Your task to perform on an android device: add a contact Image 0: 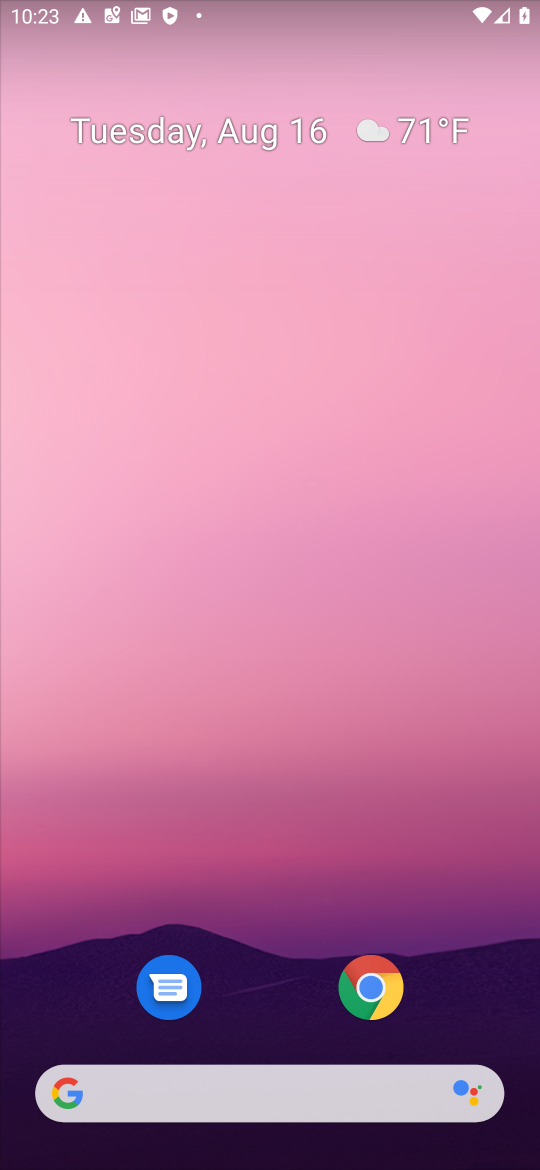
Step 0: drag from (69, 1141) to (255, 569)
Your task to perform on an android device: add a contact Image 1: 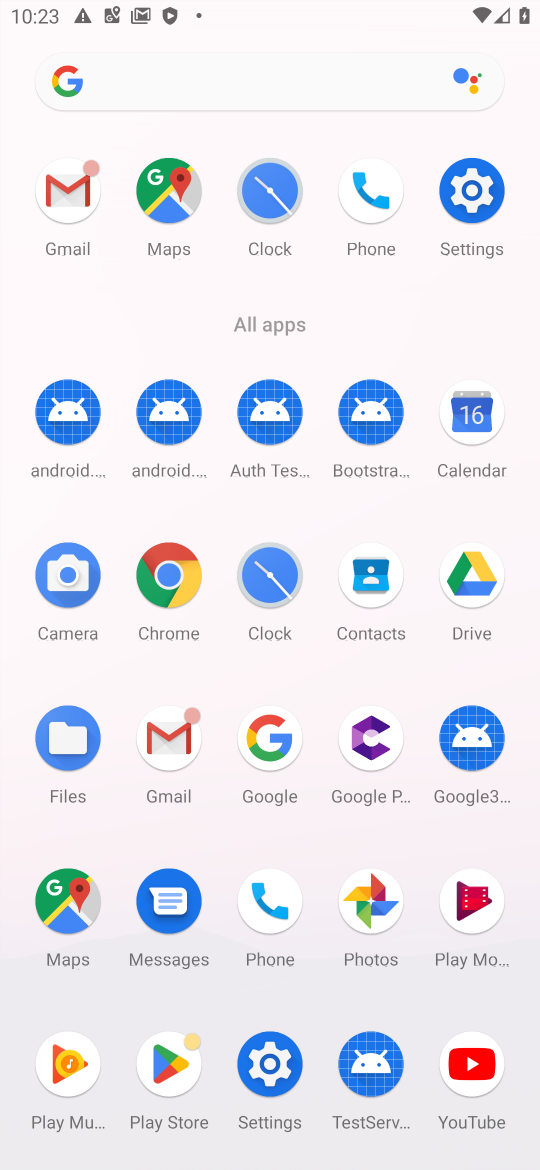
Step 1: click (266, 927)
Your task to perform on an android device: add a contact Image 2: 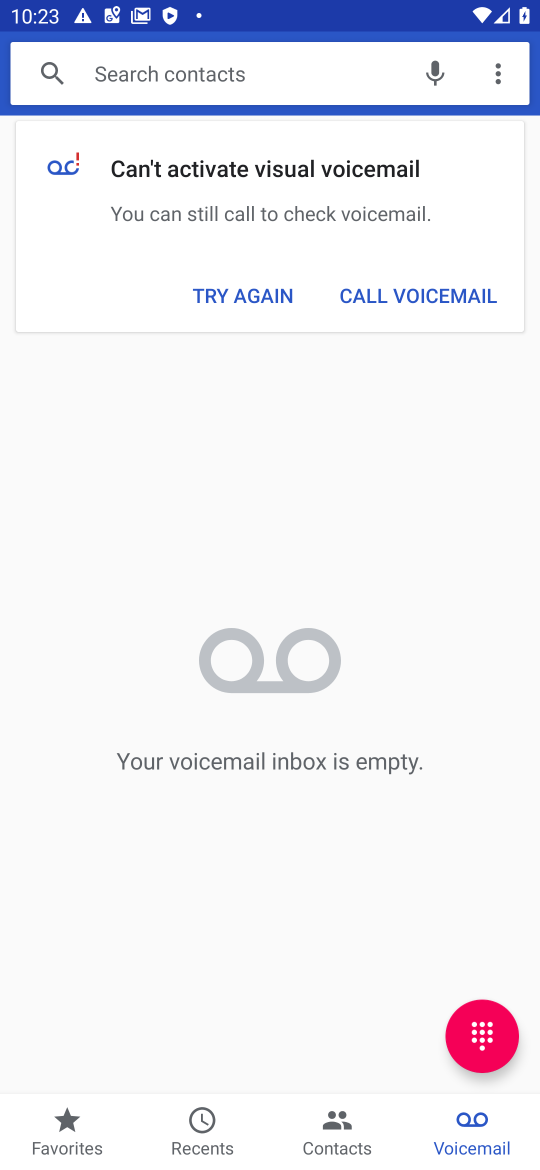
Step 2: click (341, 1137)
Your task to perform on an android device: add a contact Image 3: 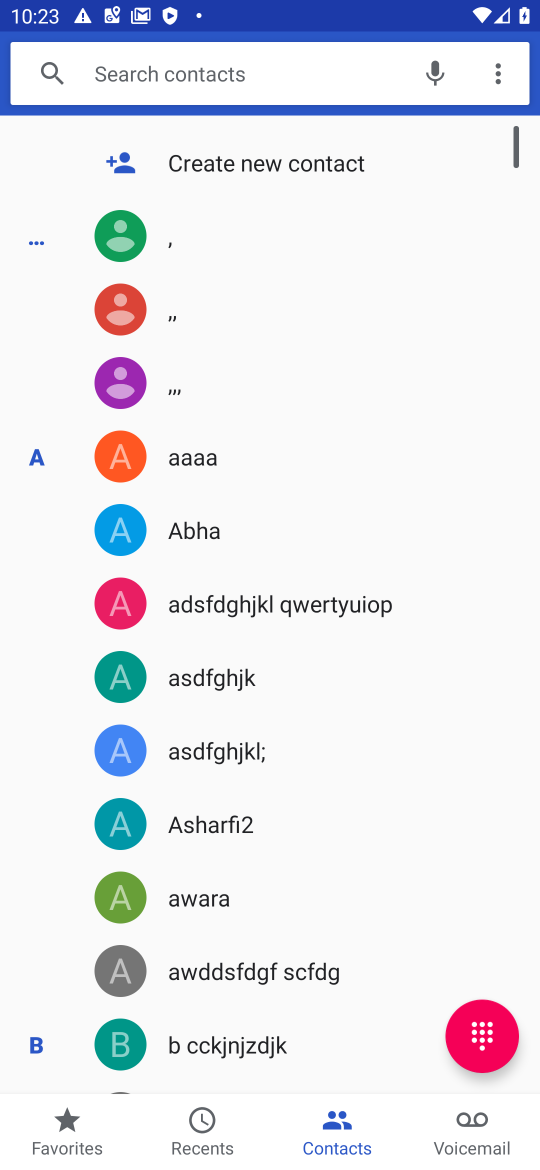
Step 3: click (211, 166)
Your task to perform on an android device: add a contact Image 4: 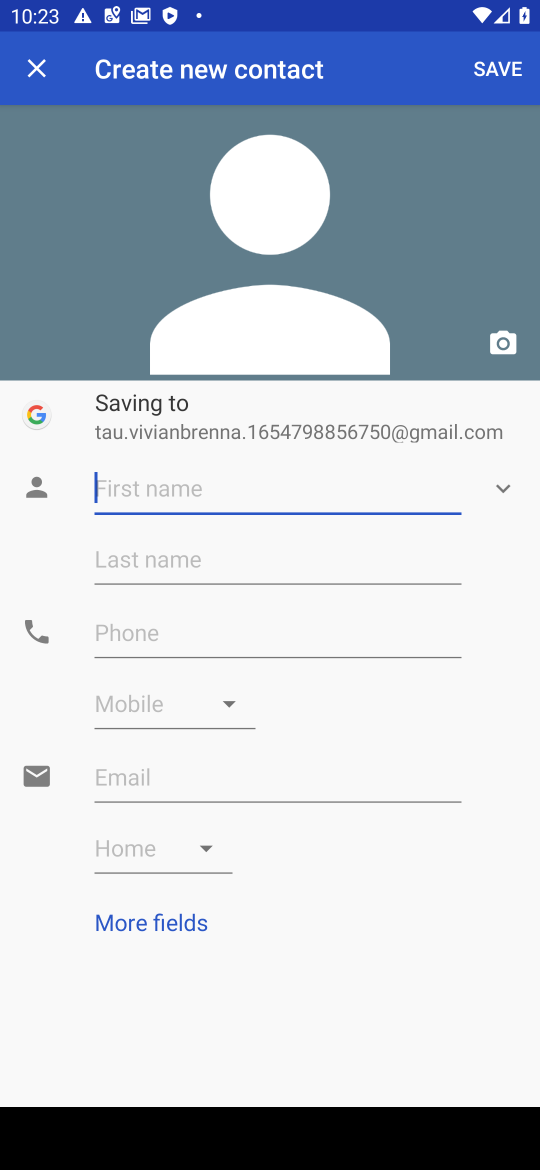
Step 4: type "fyhujhioh"
Your task to perform on an android device: add a contact Image 5: 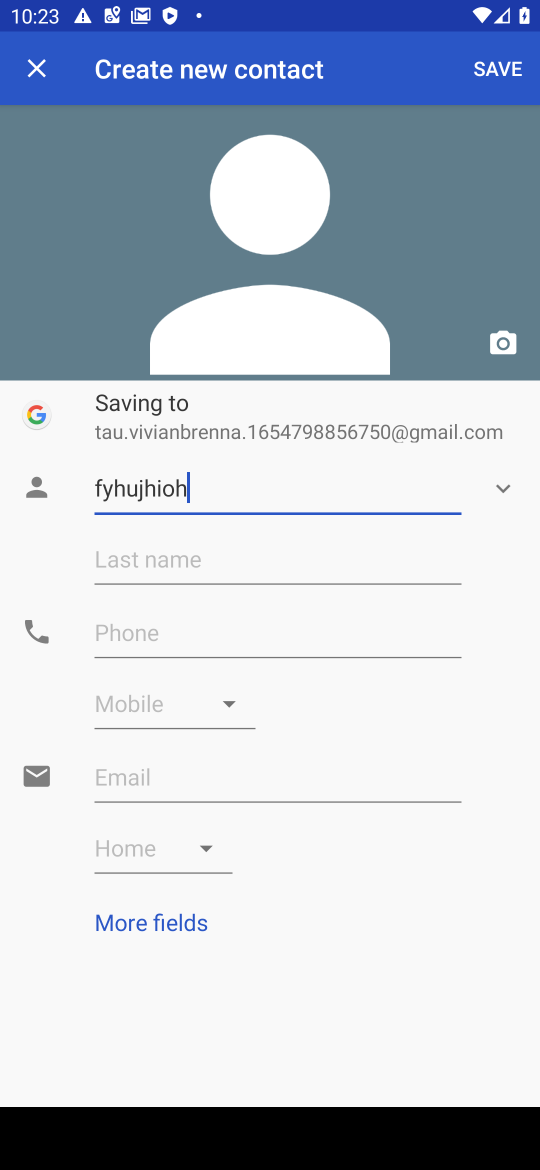
Step 5: click (499, 65)
Your task to perform on an android device: add a contact Image 6: 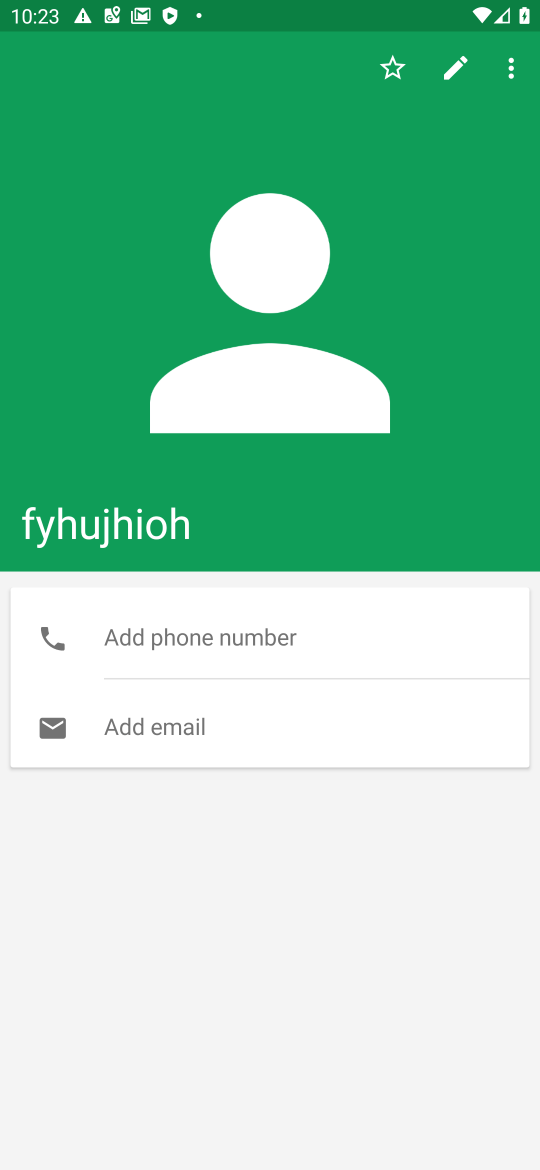
Step 6: task complete